Your task to perform on an android device: Open the map Image 0: 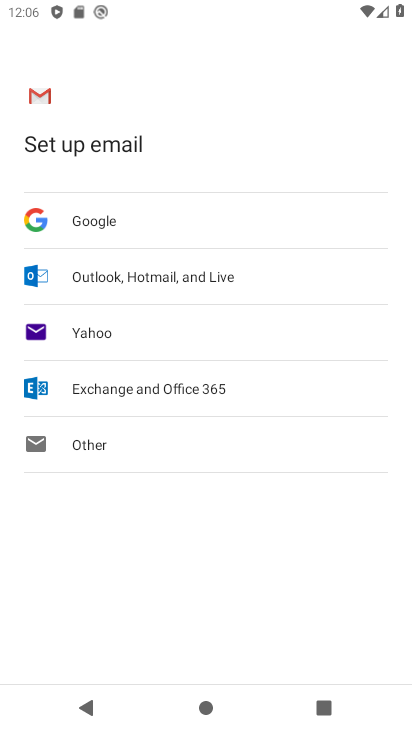
Step 0: press home button
Your task to perform on an android device: Open the map Image 1: 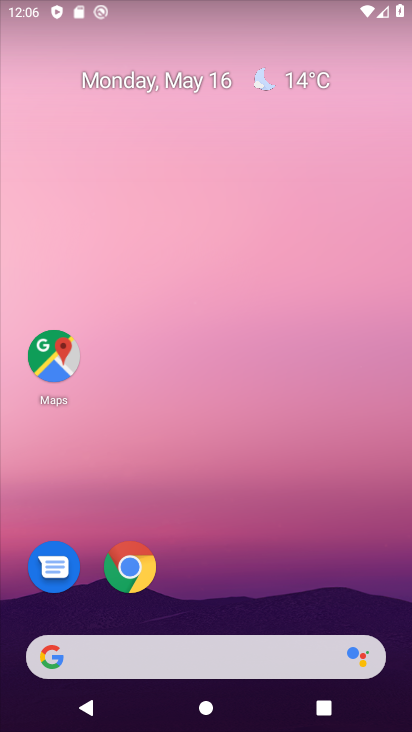
Step 1: click (48, 369)
Your task to perform on an android device: Open the map Image 2: 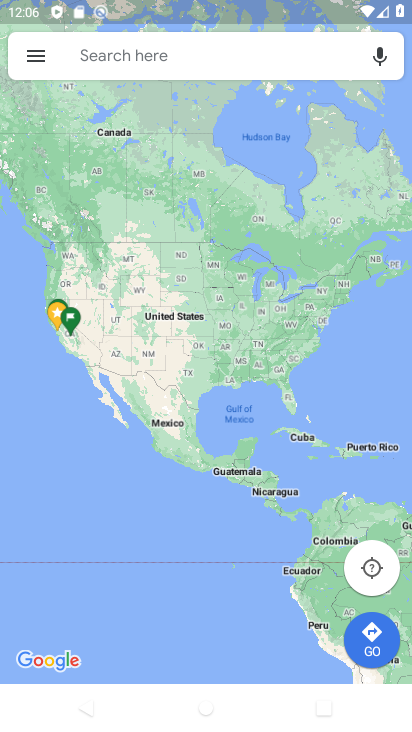
Step 2: task complete